Your task to perform on an android device: find photos in the google photos app Image 0: 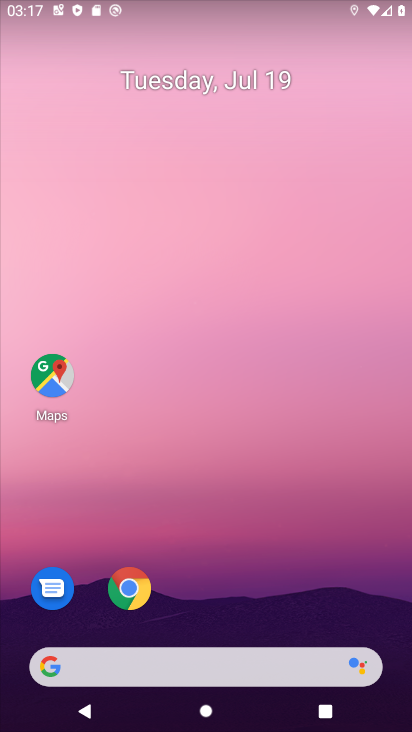
Step 0: drag from (300, 522) to (272, 118)
Your task to perform on an android device: find photos in the google photos app Image 1: 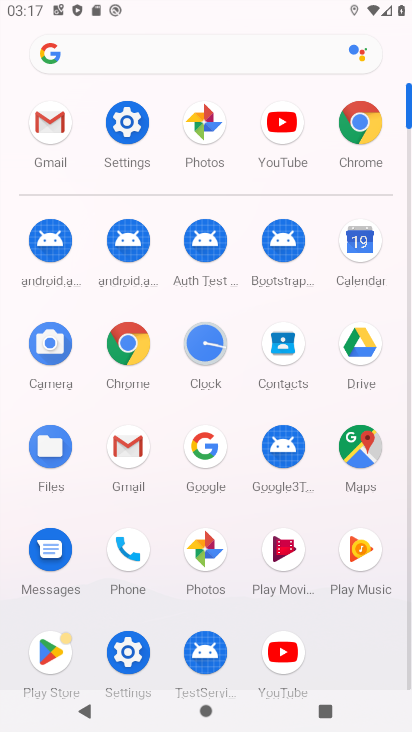
Step 1: click (202, 115)
Your task to perform on an android device: find photos in the google photos app Image 2: 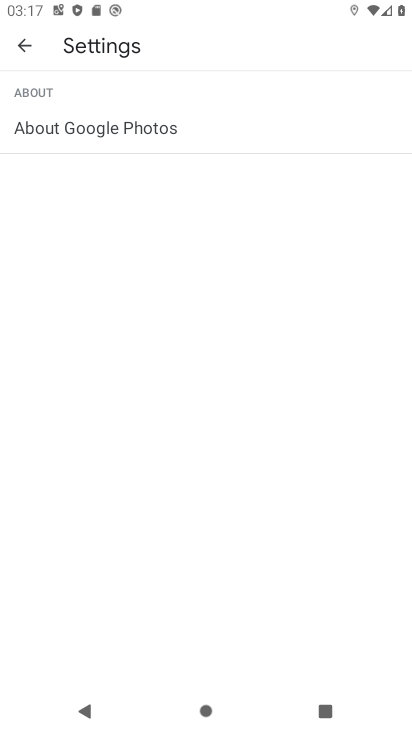
Step 2: click (25, 41)
Your task to perform on an android device: find photos in the google photos app Image 3: 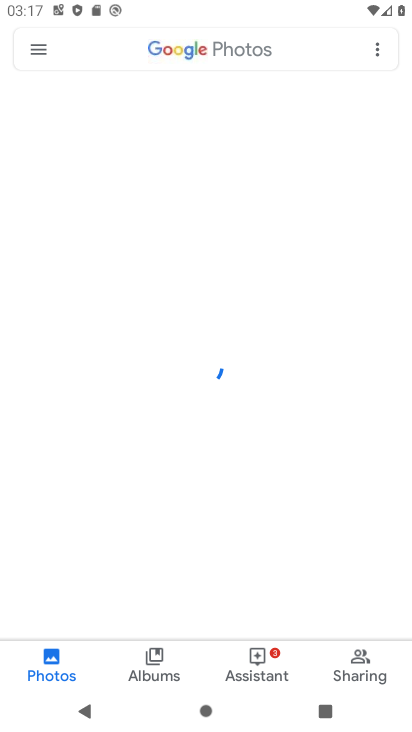
Step 3: click (130, 49)
Your task to perform on an android device: find photos in the google photos app Image 4: 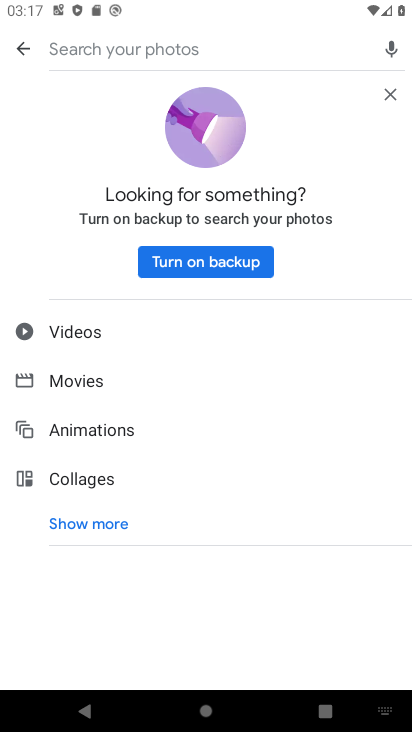
Step 4: task complete